Your task to perform on an android device: Go to location settings Image 0: 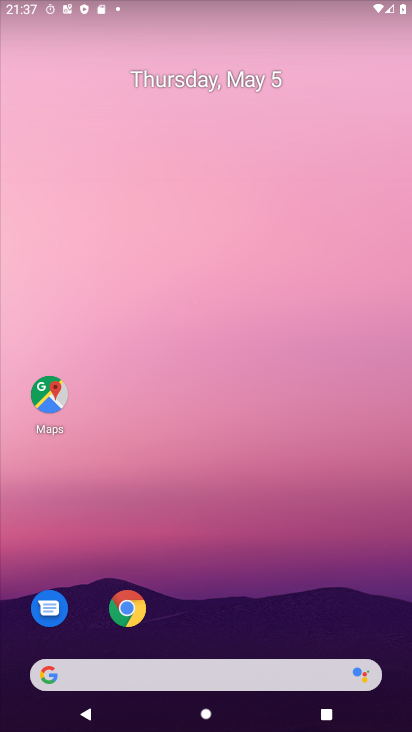
Step 0: drag from (272, 678) to (297, 0)
Your task to perform on an android device: Go to location settings Image 1: 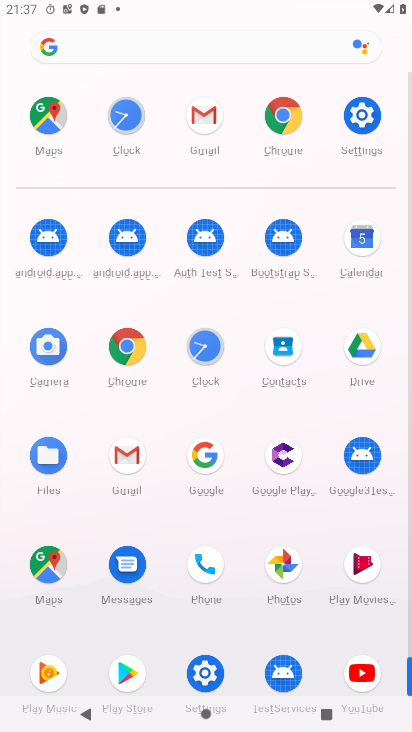
Step 1: click (355, 120)
Your task to perform on an android device: Go to location settings Image 2: 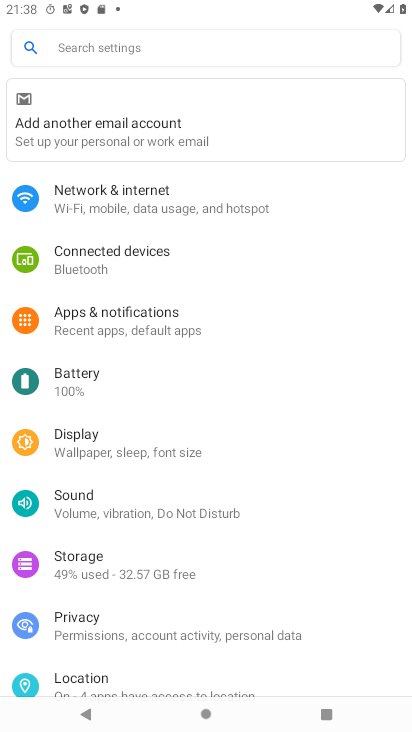
Step 2: click (134, 678)
Your task to perform on an android device: Go to location settings Image 3: 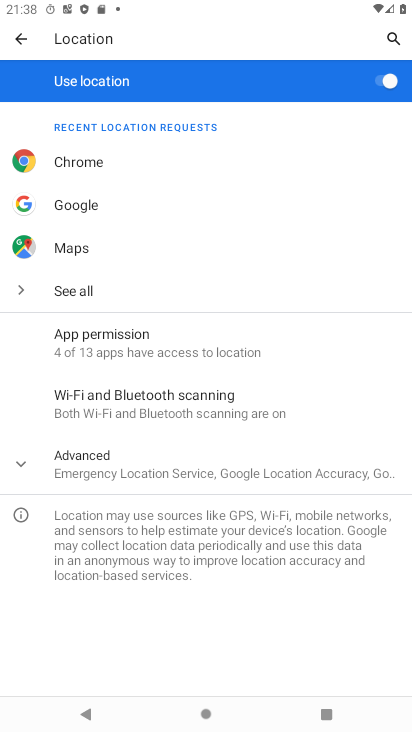
Step 3: click (133, 470)
Your task to perform on an android device: Go to location settings Image 4: 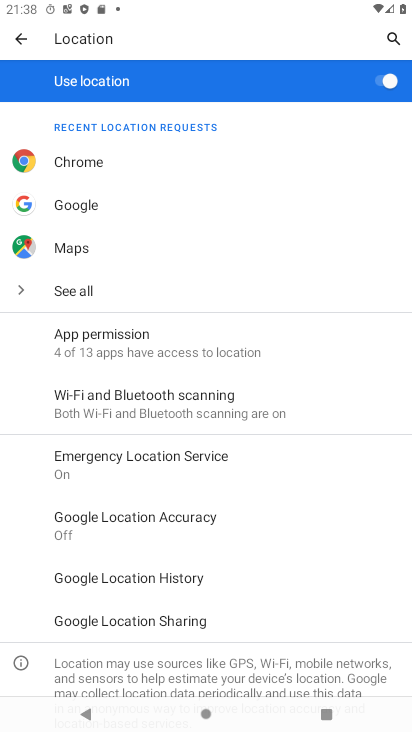
Step 4: task complete